Your task to perform on an android device: toggle data saver in the chrome app Image 0: 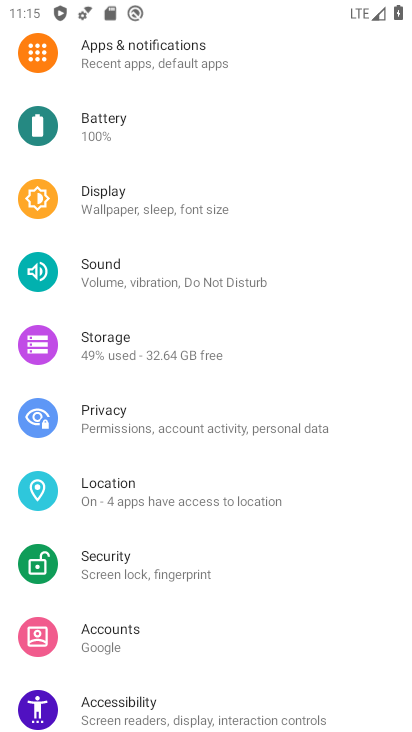
Step 0: press home button
Your task to perform on an android device: toggle data saver in the chrome app Image 1: 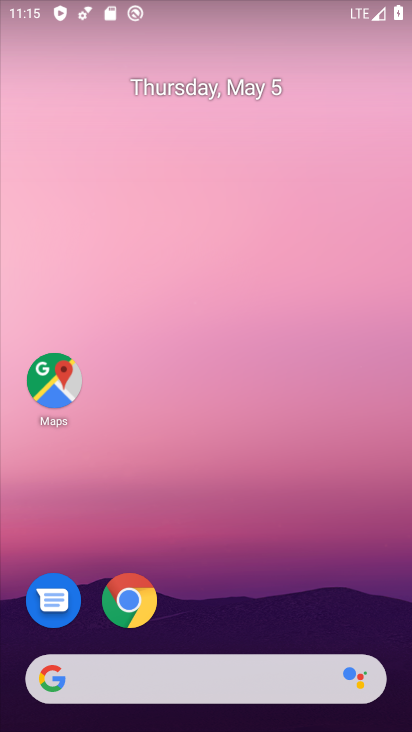
Step 1: drag from (398, 663) to (298, 52)
Your task to perform on an android device: toggle data saver in the chrome app Image 2: 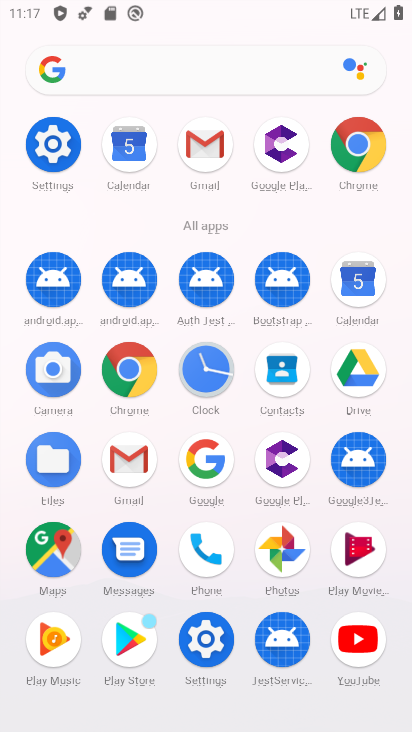
Step 2: click (103, 374)
Your task to perform on an android device: toggle data saver in the chrome app Image 3: 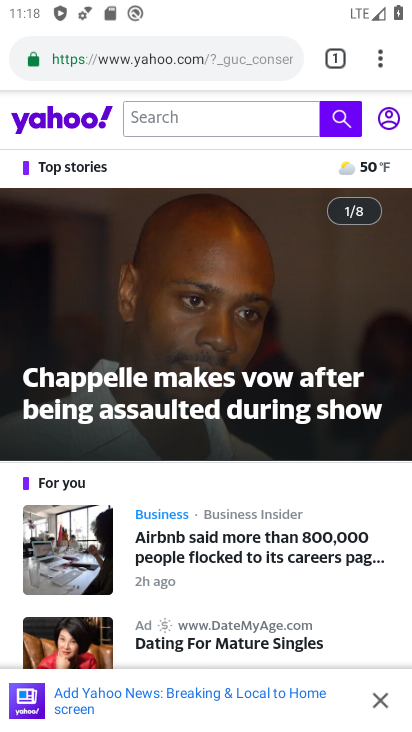
Step 3: press back button
Your task to perform on an android device: toggle data saver in the chrome app Image 4: 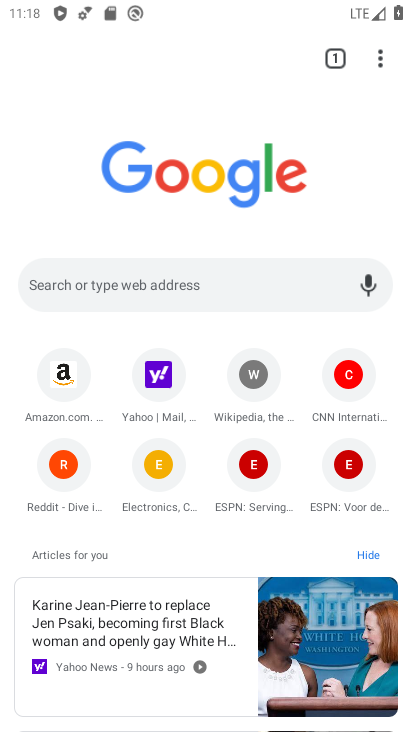
Step 4: click (377, 59)
Your task to perform on an android device: toggle data saver in the chrome app Image 5: 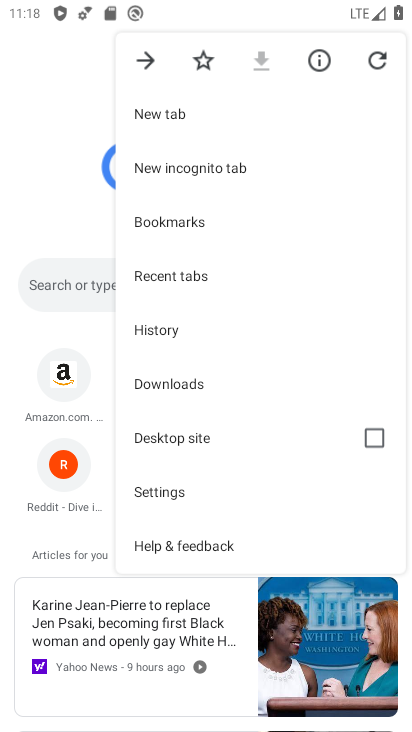
Step 5: click (177, 500)
Your task to perform on an android device: toggle data saver in the chrome app Image 6: 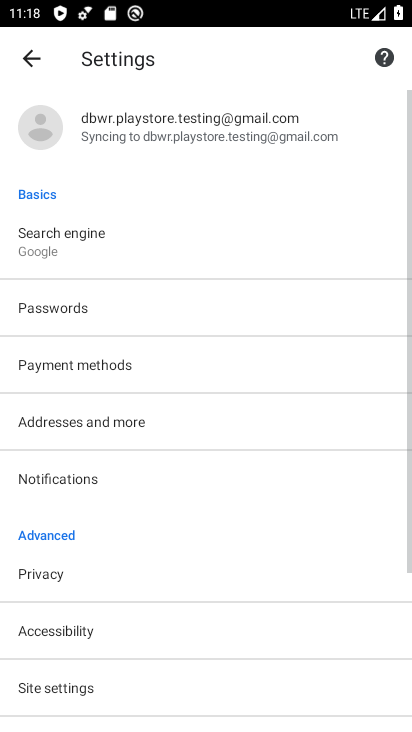
Step 6: drag from (85, 662) to (143, 297)
Your task to perform on an android device: toggle data saver in the chrome app Image 7: 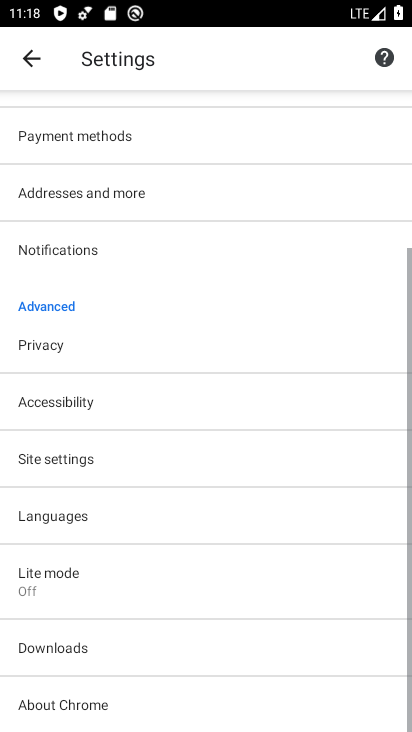
Step 7: click (113, 579)
Your task to perform on an android device: toggle data saver in the chrome app Image 8: 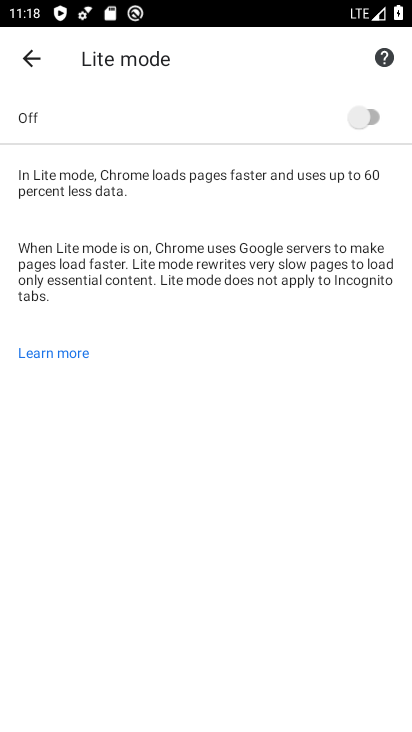
Step 8: click (356, 120)
Your task to perform on an android device: toggle data saver in the chrome app Image 9: 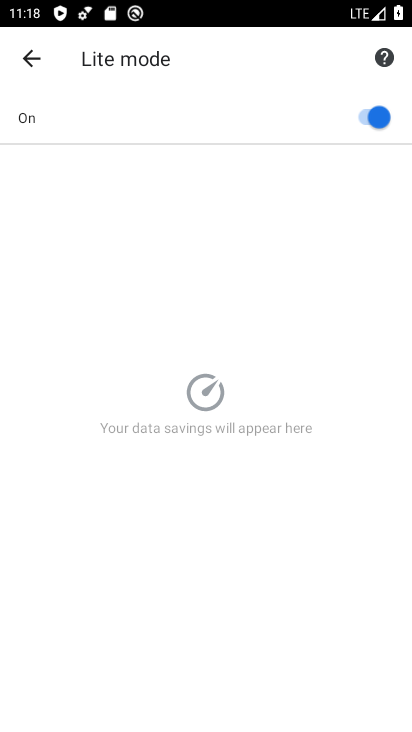
Step 9: task complete